Your task to perform on an android device: refresh tabs in the chrome app Image 0: 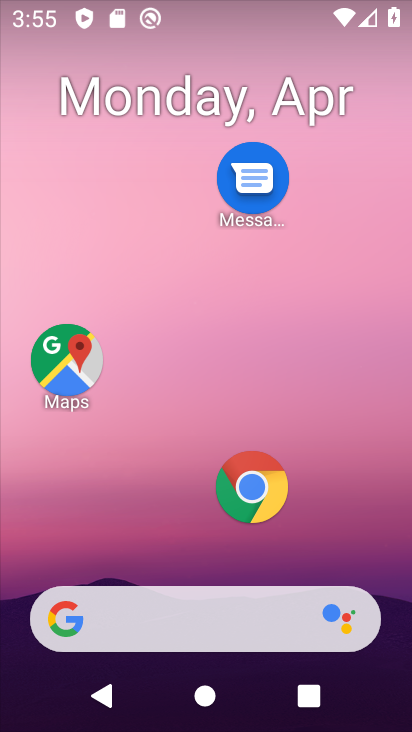
Step 0: click (257, 497)
Your task to perform on an android device: refresh tabs in the chrome app Image 1: 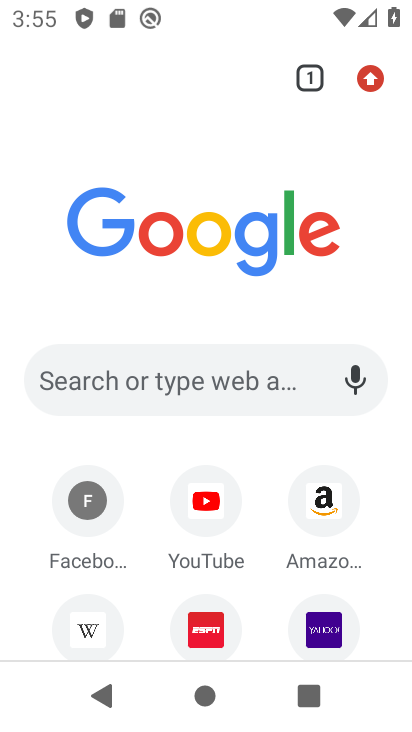
Step 1: click (374, 82)
Your task to perform on an android device: refresh tabs in the chrome app Image 2: 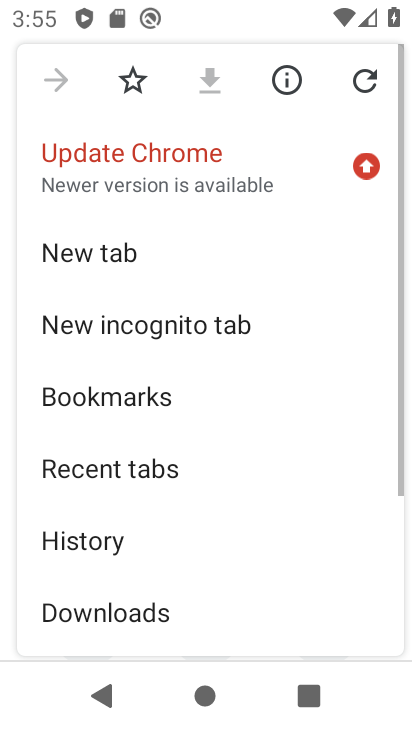
Step 2: click (362, 85)
Your task to perform on an android device: refresh tabs in the chrome app Image 3: 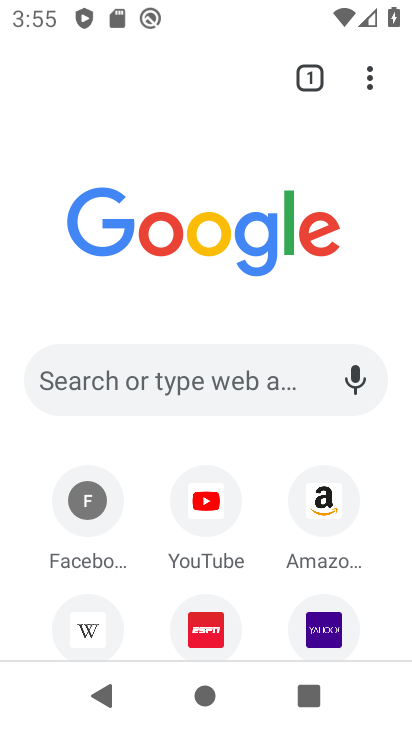
Step 3: task complete